Your task to perform on an android device: Go to settings Image 0: 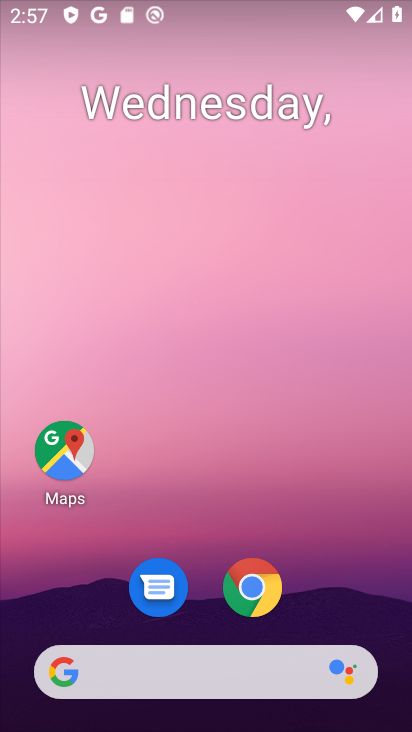
Step 0: drag from (187, 690) to (234, 215)
Your task to perform on an android device: Go to settings Image 1: 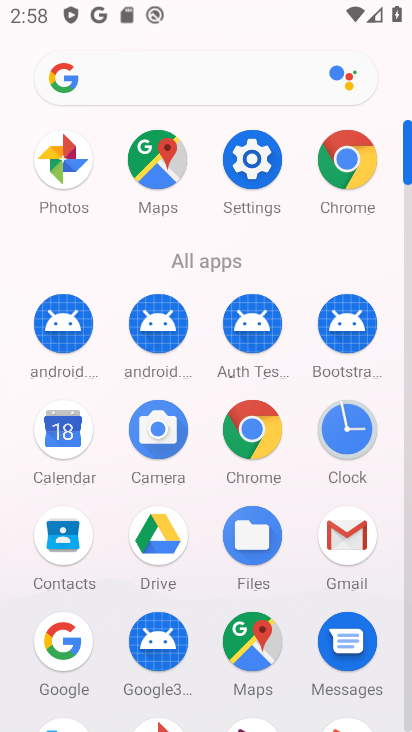
Step 1: click (237, 185)
Your task to perform on an android device: Go to settings Image 2: 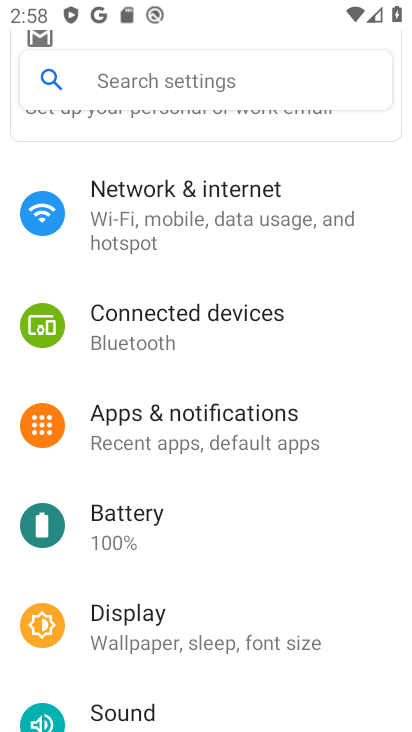
Step 2: task complete